Your task to perform on an android device: Search for pizza restaurants on Maps Image 0: 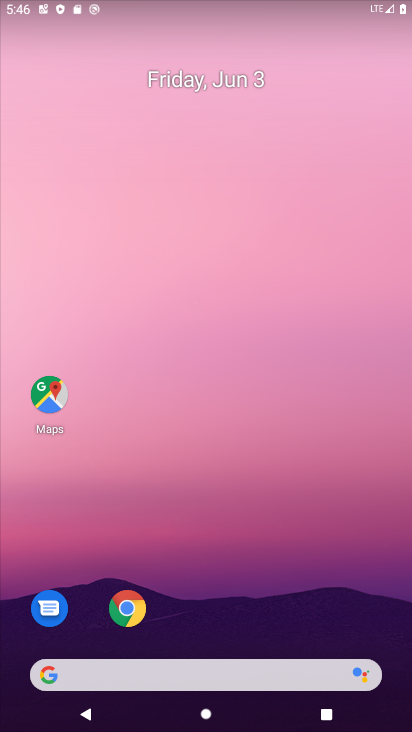
Step 0: click (54, 394)
Your task to perform on an android device: Search for pizza restaurants on Maps Image 1: 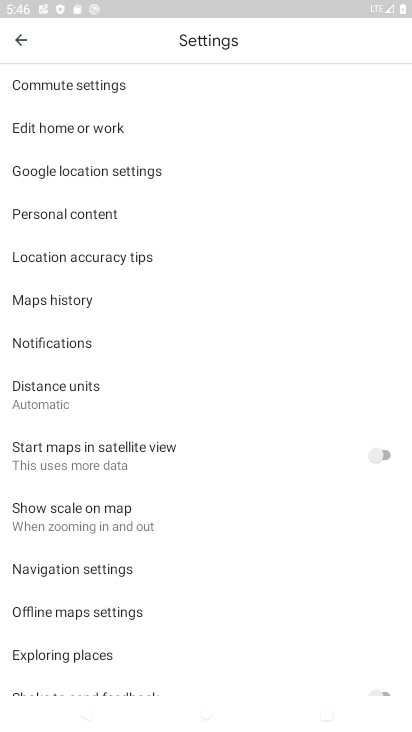
Step 1: click (19, 42)
Your task to perform on an android device: Search for pizza restaurants on Maps Image 2: 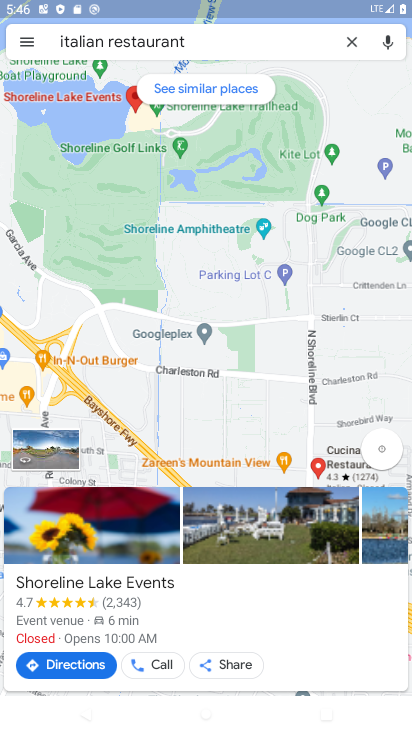
Step 2: click (88, 40)
Your task to perform on an android device: Search for pizza restaurants on Maps Image 3: 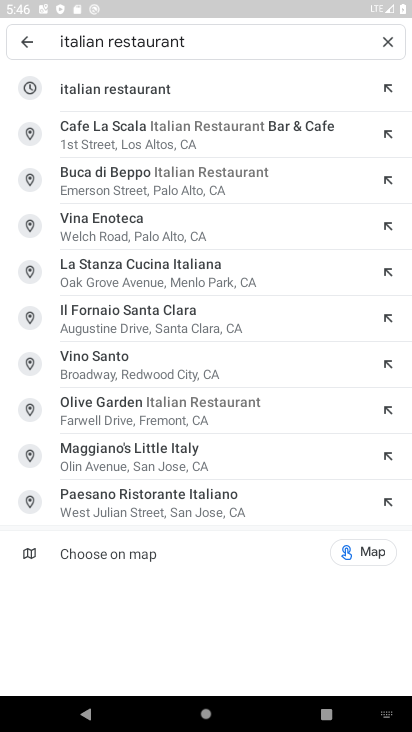
Step 3: click (385, 42)
Your task to perform on an android device: Search for pizza restaurants on Maps Image 4: 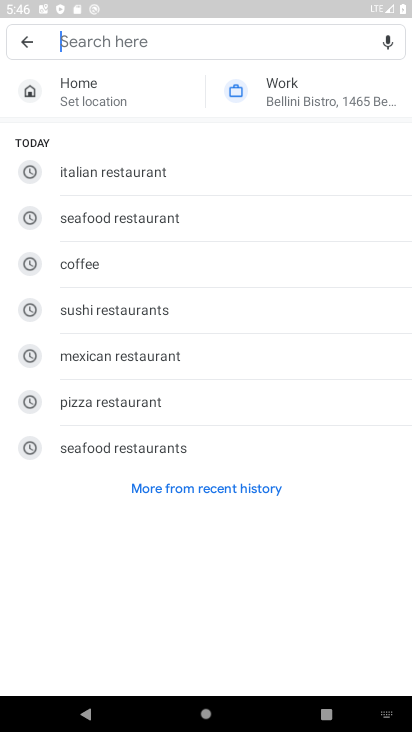
Step 4: click (52, 399)
Your task to perform on an android device: Search for pizza restaurants on Maps Image 5: 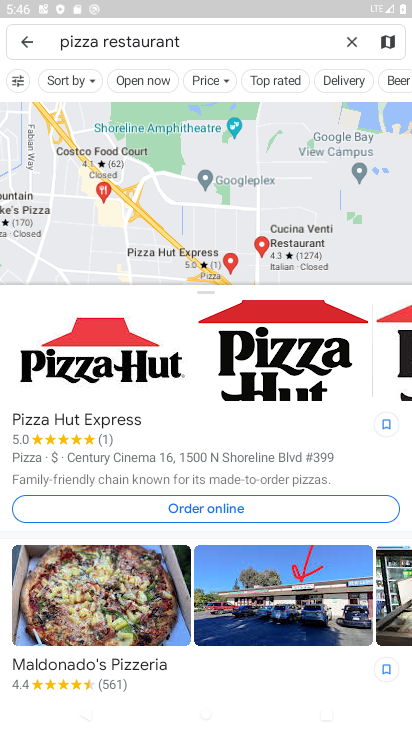
Step 5: task complete